Your task to perform on an android device: check the backup settings in the google photos Image 0: 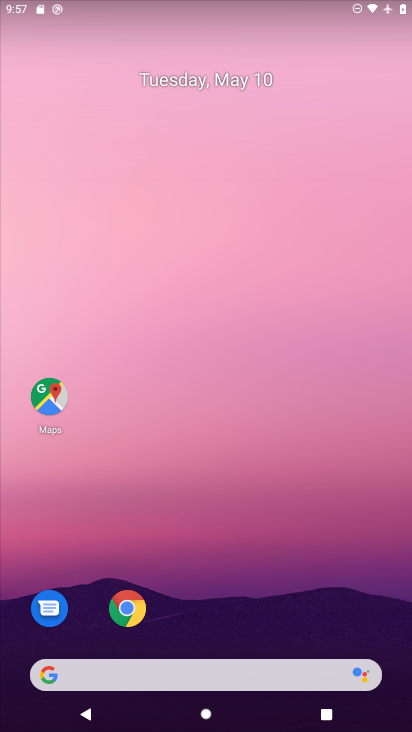
Step 0: drag from (224, 599) to (216, 300)
Your task to perform on an android device: check the backup settings in the google photos Image 1: 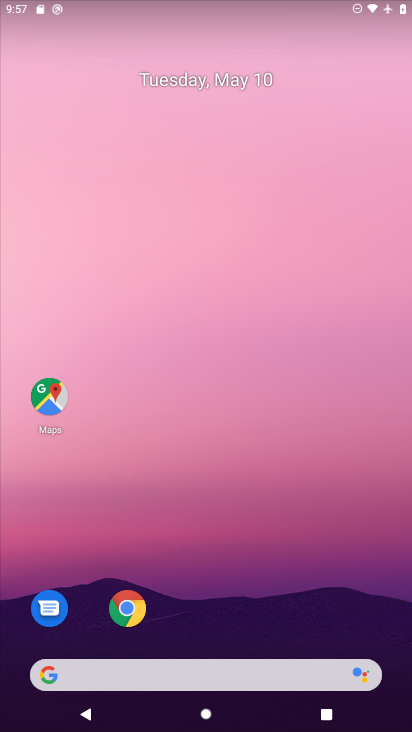
Step 1: drag from (216, 610) to (267, 177)
Your task to perform on an android device: check the backup settings in the google photos Image 2: 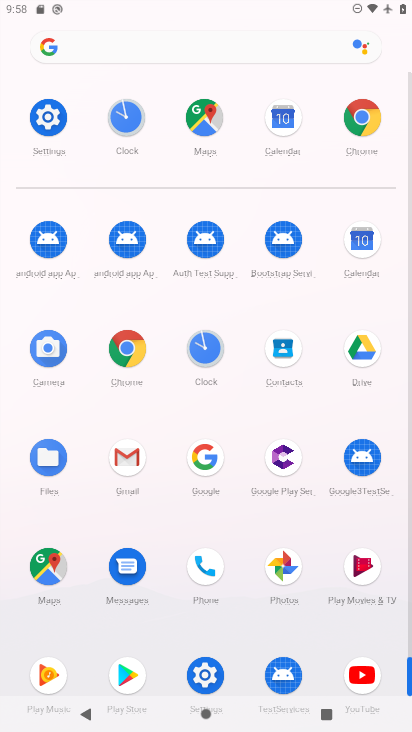
Step 2: click (265, 555)
Your task to perform on an android device: check the backup settings in the google photos Image 3: 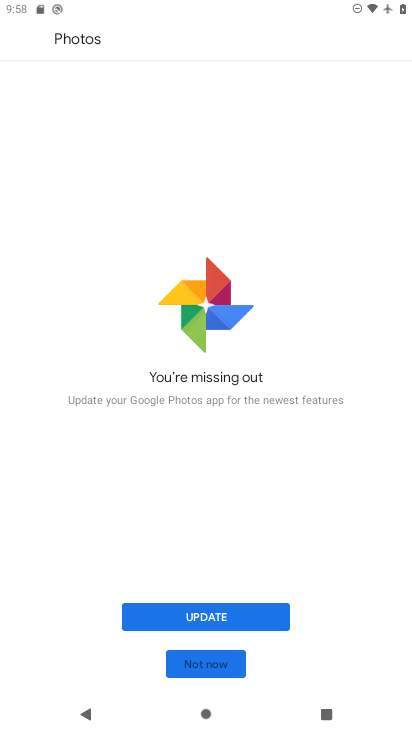
Step 3: click (218, 663)
Your task to perform on an android device: check the backup settings in the google photos Image 4: 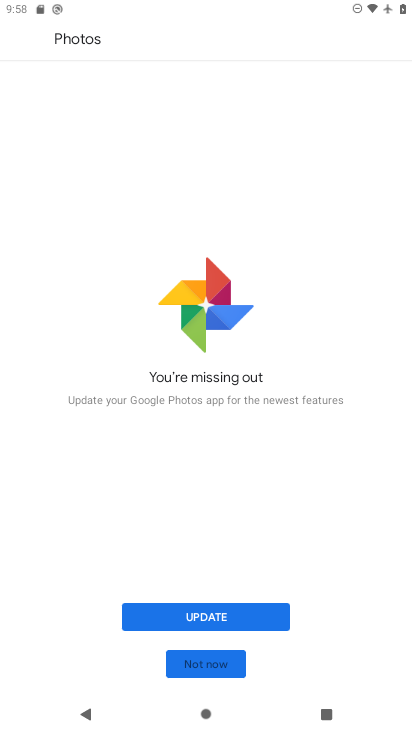
Step 4: click (205, 660)
Your task to perform on an android device: check the backup settings in the google photos Image 5: 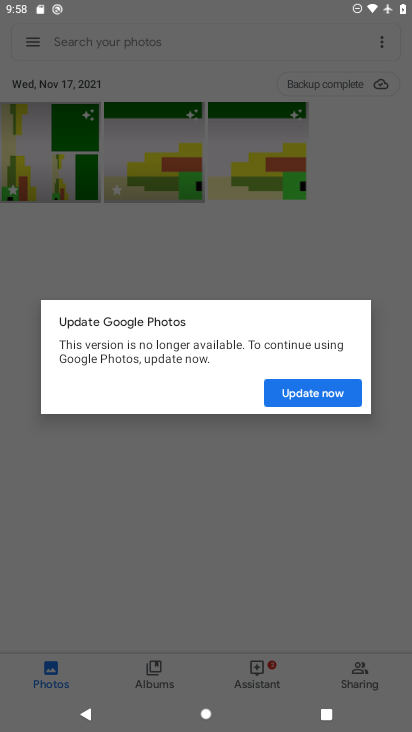
Step 5: click (317, 376)
Your task to perform on an android device: check the backup settings in the google photos Image 6: 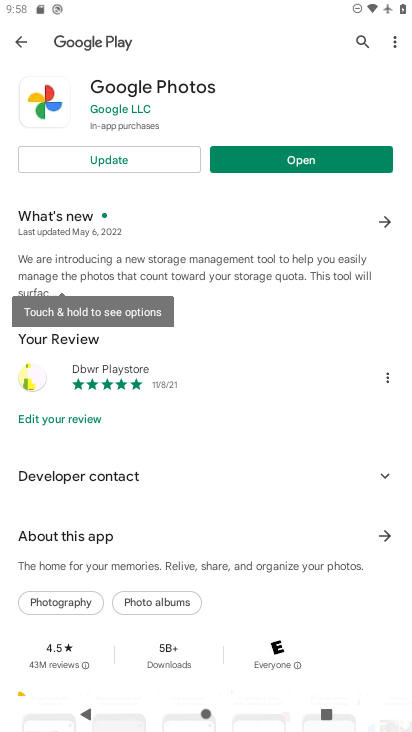
Step 6: press back button
Your task to perform on an android device: check the backup settings in the google photos Image 7: 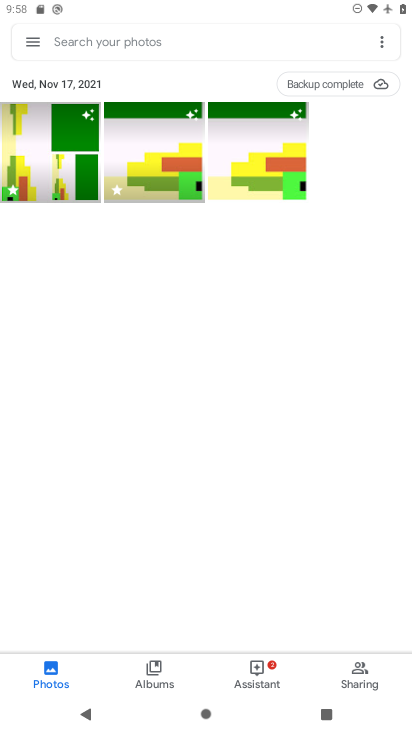
Step 7: click (15, 42)
Your task to perform on an android device: check the backup settings in the google photos Image 8: 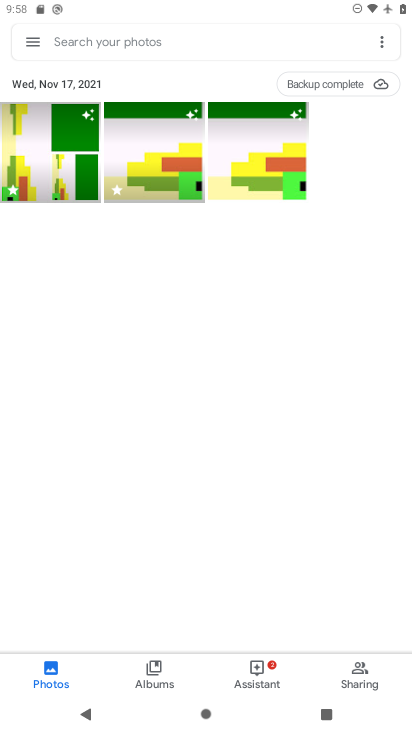
Step 8: click (28, 37)
Your task to perform on an android device: check the backup settings in the google photos Image 9: 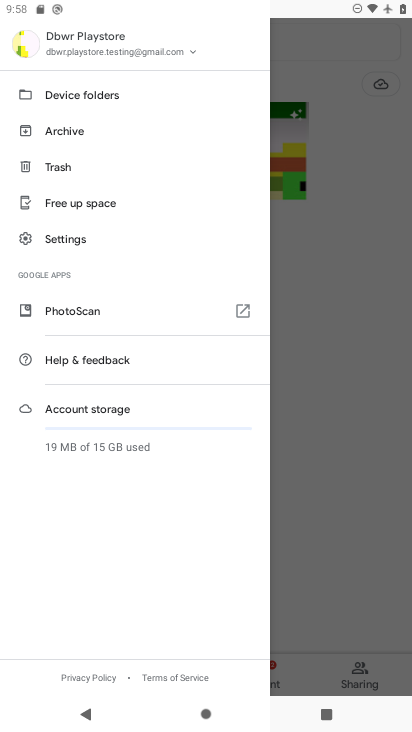
Step 9: click (86, 240)
Your task to perform on an android device: check the backup settings in the google photos Image 10: 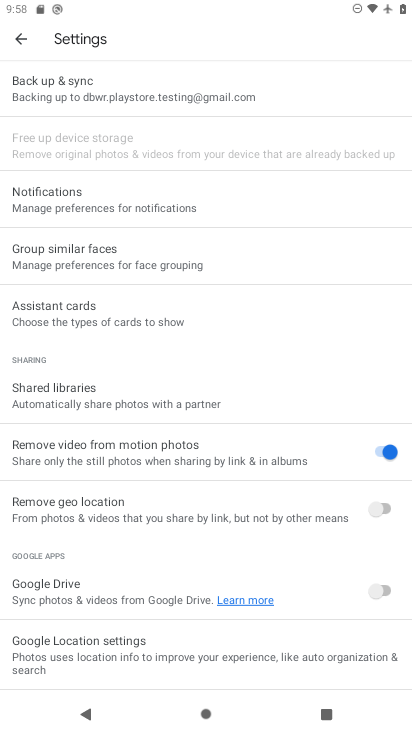
Step 10: click (93, 195)
Your task to perform on an android device: check the backup settings in the google photos Image 11: 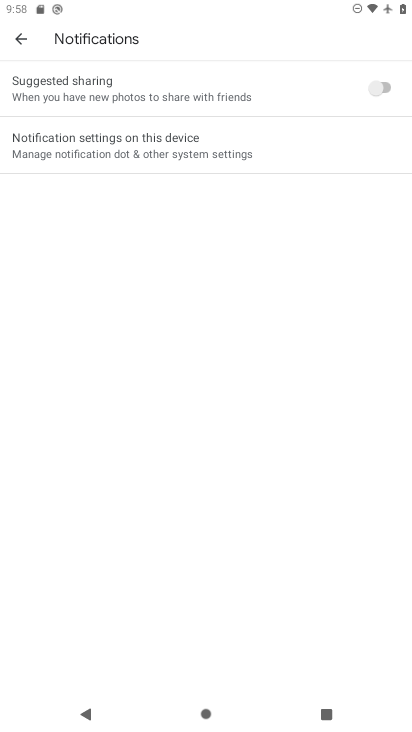
Step 11: click (29, 44)
Your task to perform on an android device: check the backup settings in the google photos Image 12: 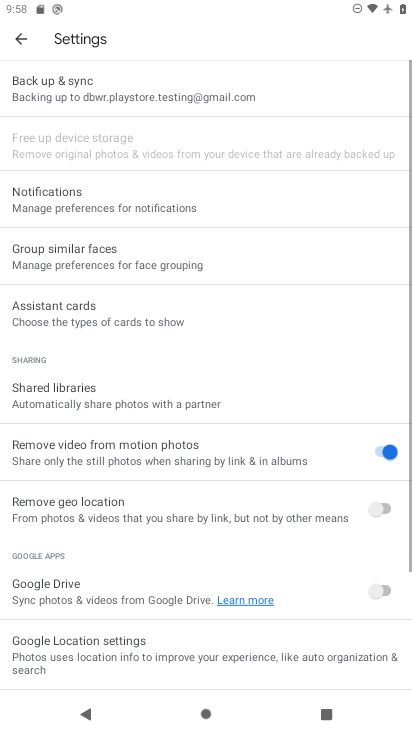
Step 12: click (76, 94)
Your task to perform on an android device: check the backup settings in the google photos Image 13: 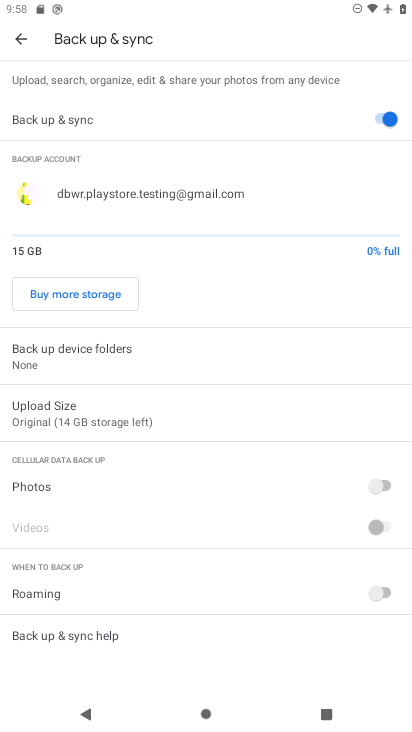
Step 13: task complete